Your task to perform on an android device: Go to calendar. Show me events next week Image 0: 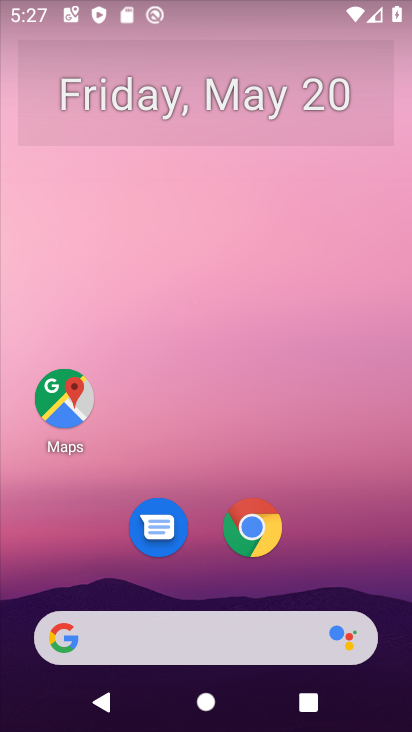
Step 0: drag from (323, 614) to (323, 43)
Your task to perform on an android device: Go to calendar. Show me events next week Image 1: 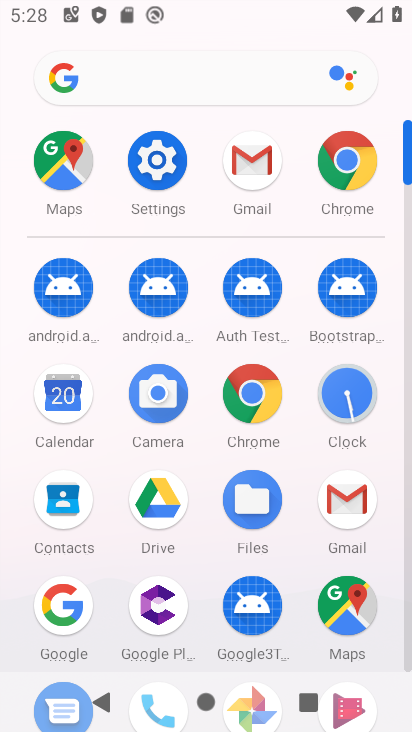
Step 1: click (63, 396)
Your task to perform on an android device: Go to calendar. Show me events next week Image 2: 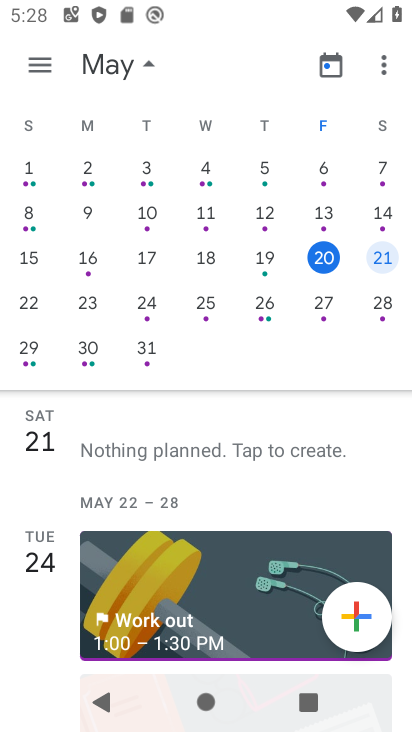
Step 2: click (207, 304)
Your task to perform on an android device: Go to calendar. Show me events next week Image 3: 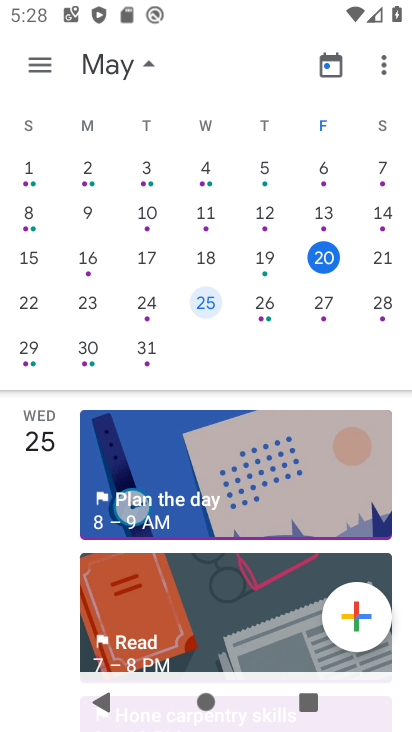
Step 3: click (41, 64)
Your task to perform on an android device: Go to calendar. Show me events next week Image 4: 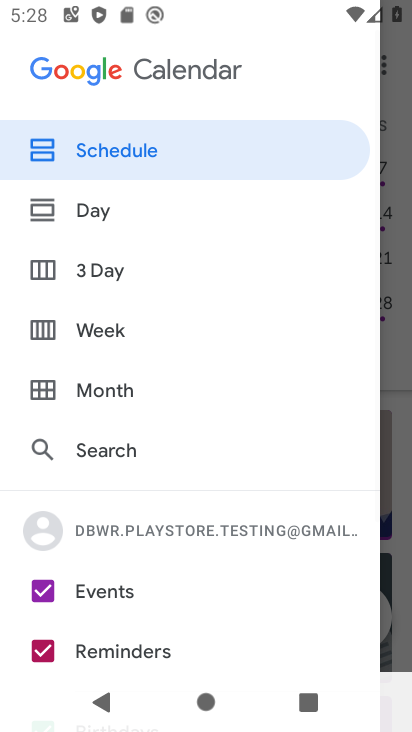
Step 4: click (95, 328)
Your task to perform on an android device: Go to calendar. Show me events next week Image 5: 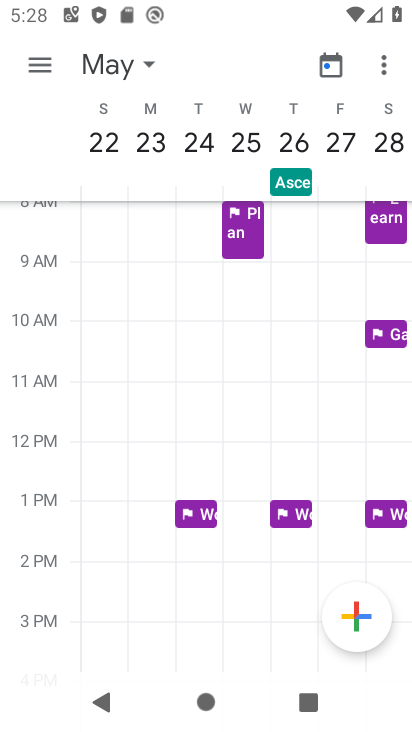
Step 5: task complete